Your task to perform on an android device: turn on the 24-hour format for clock Image 0: 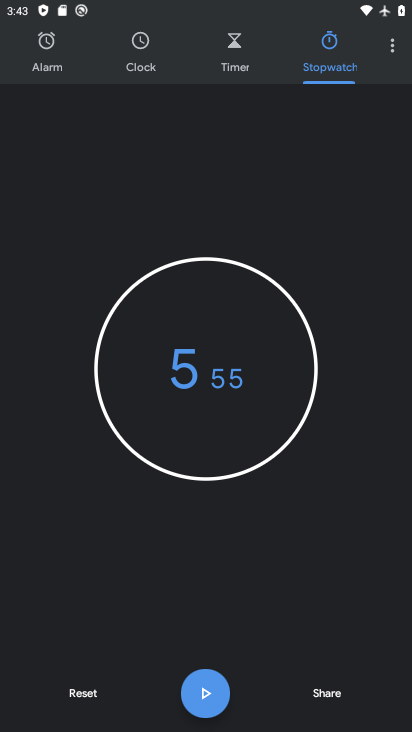
Step 0: click (394, 48)
Your task to perform on an android device: turn on the 24-hour format for clock Image 1: 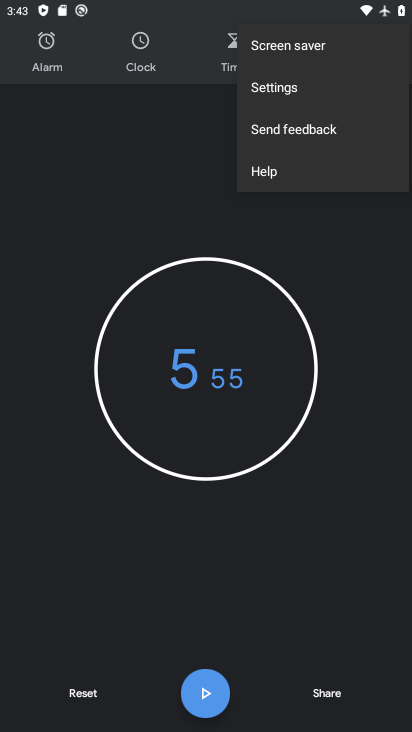
Step 1: click (292, 87)
Your task to perform on an android device: turn on the 24-hour format for clock Image 2: 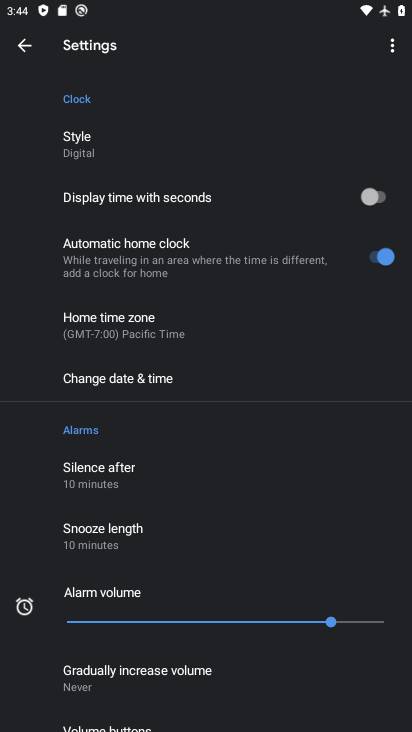
Step 2: click (147, 381)
Your task to perform on an android device: turn on the 24-hour format for clock Image 3: 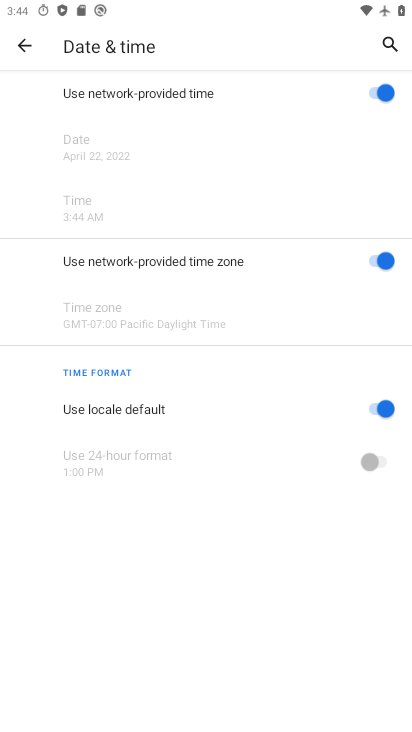
Step 3: click (373, 402)
Your task to perform on an android device: turn on the 24-hour format for clock Image 4: 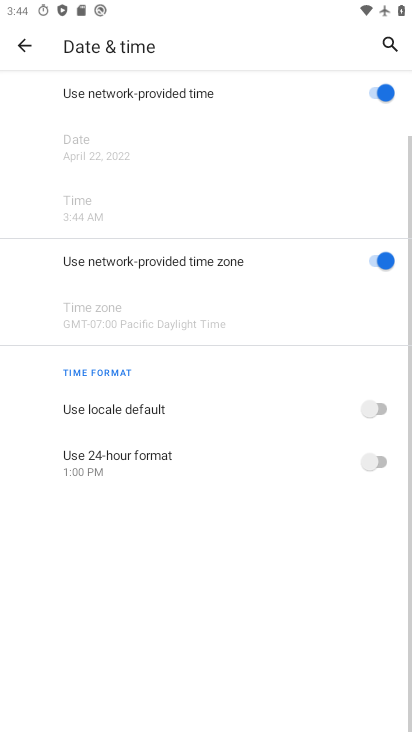
Step 4: click (373, 444)
Your task to perform on an android device: turn on the 24-hour format for clock Image 5: 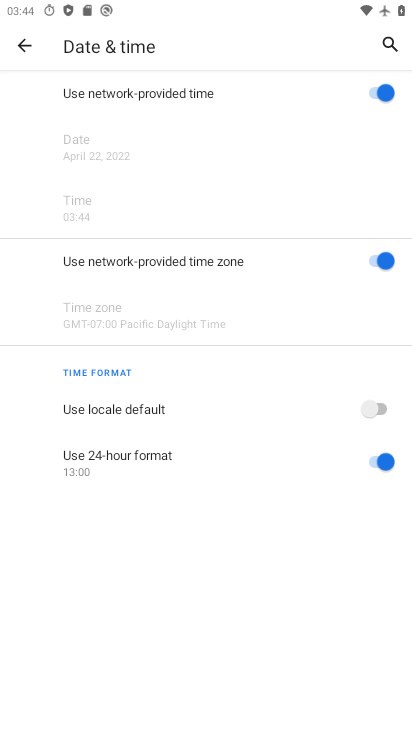
Step 5: task complete